Your task to perform on an android device: add a label to a message in the gmail app Image 0: 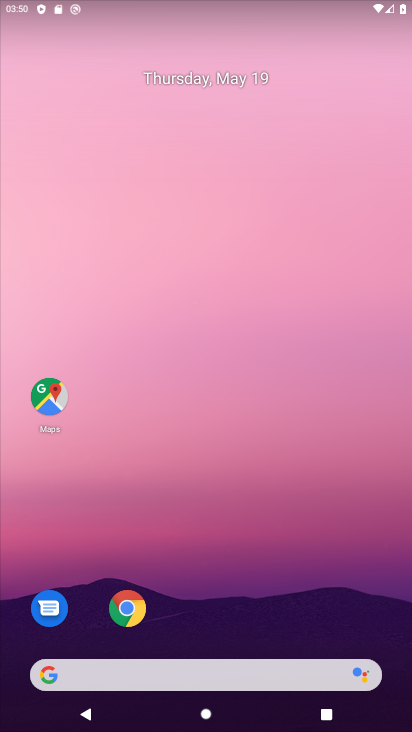
Step 0: drag from (293, 621) to (246, 126)
Your task to perform on an android device: add a label to a message in the gmail app Image 1: 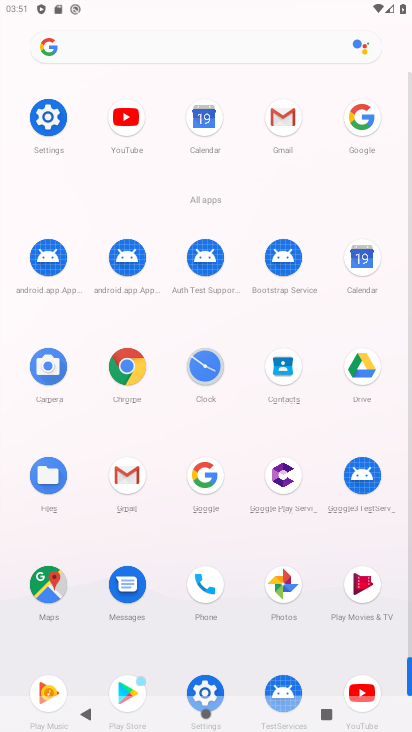
Step 1: drag from (243, 629) to (242, 312)
Your task to perform on an android device: add a label to a message in the gmail app Image 2: 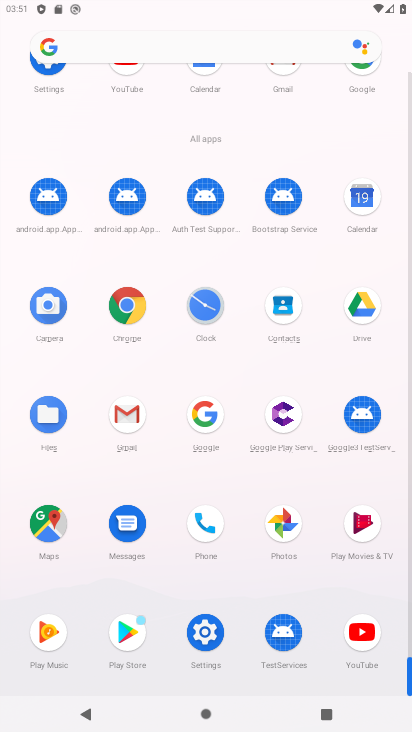
Step 2: click (127, 412)
Your task to perform on an android device: add a label to a message in the gmail app Image 3: 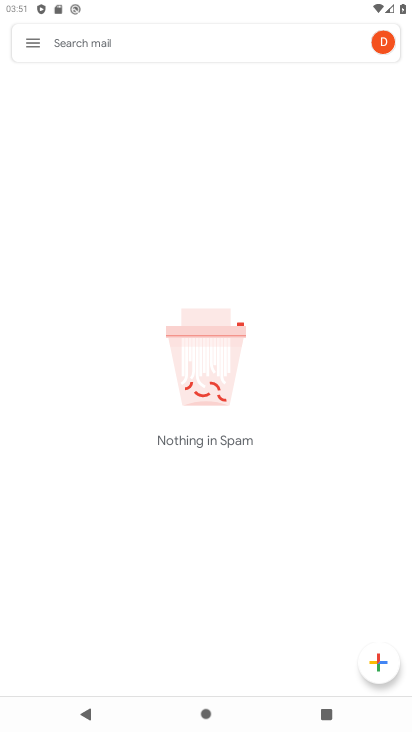
Step 3: click (34, 42)
Your task to perform on an android device: add a label to a message in the gmail app Image 4: 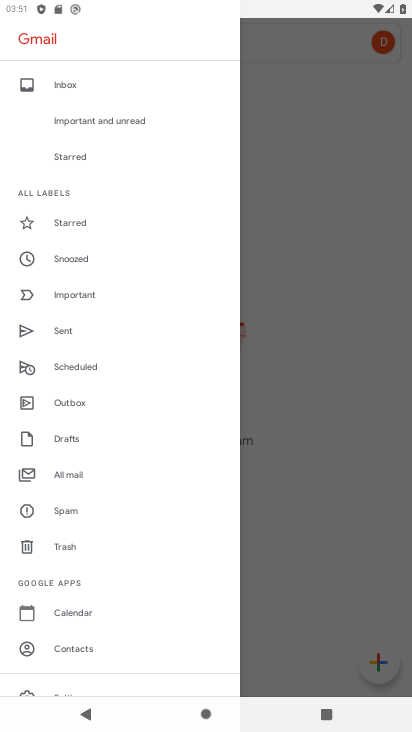
Step 4: click (63, 82)
Your task to perform on an android device: add a label to a message in the gmail app Image 5: 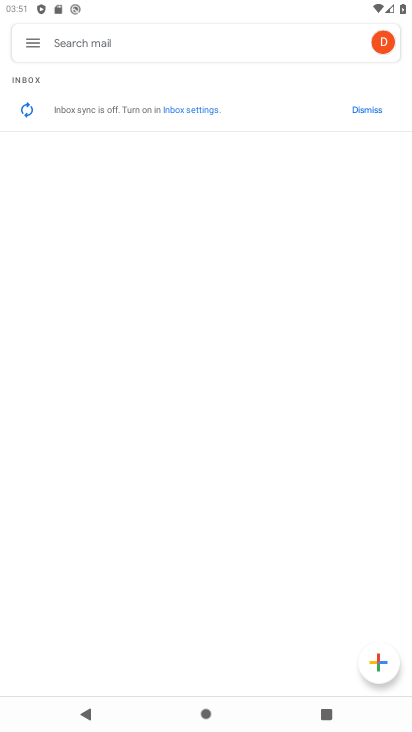
Step 5: click (33, 43)
Your task to perform on an android device: add a label to a message in the gmail app Image 6: 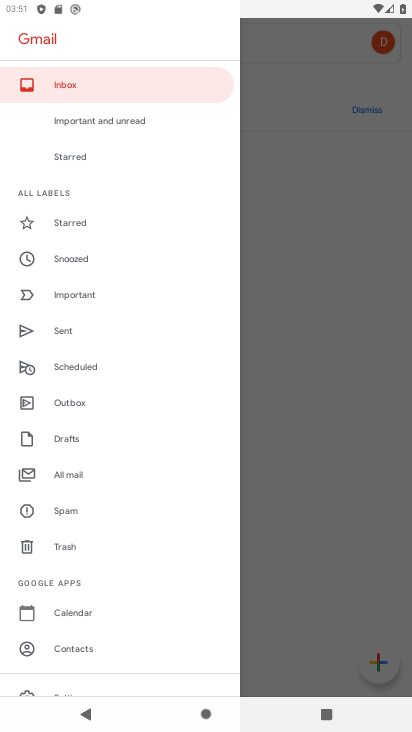
Step 6: click (74, 479)
Your task to perform on an android device: add a label to a message in the gmail app Image 7: 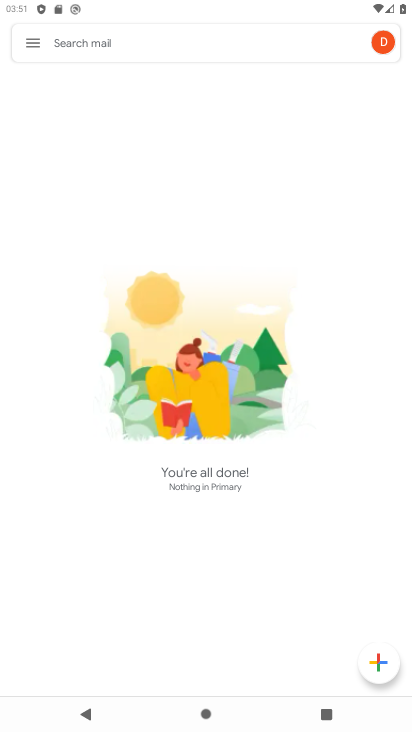
Step 7: task complete